Your task to perform on an android device: Do I have any events this weekend? Image 0: 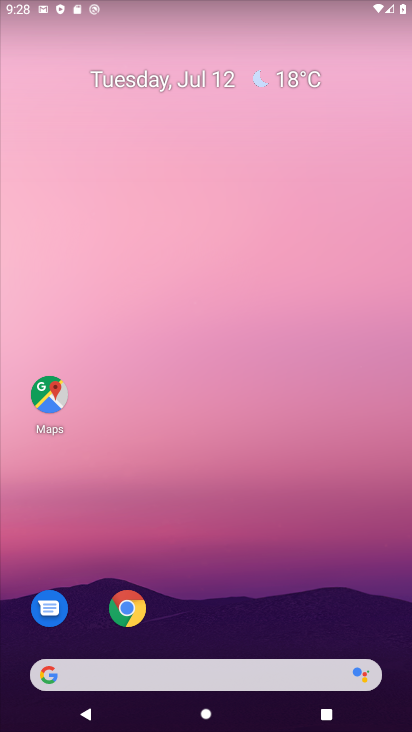
Step 0: drag from (240, 558) to (195, 155)
Your task to perform on an android device: Do I have any events this weekend? Image 1: 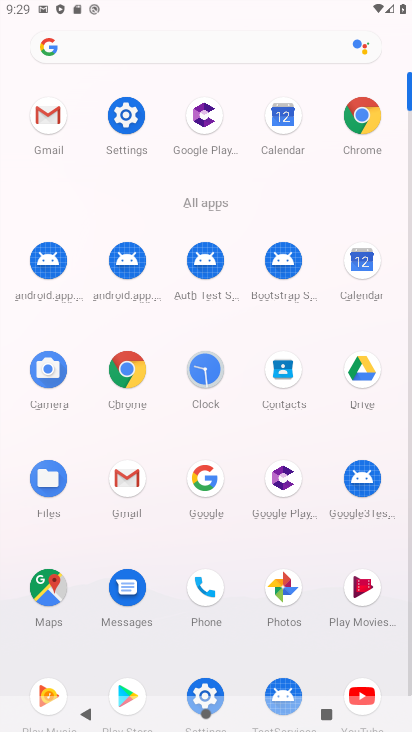
Step 1: click (355, 255)
Your task to perform on an android device: Do I have any events this weekend? Image 2: 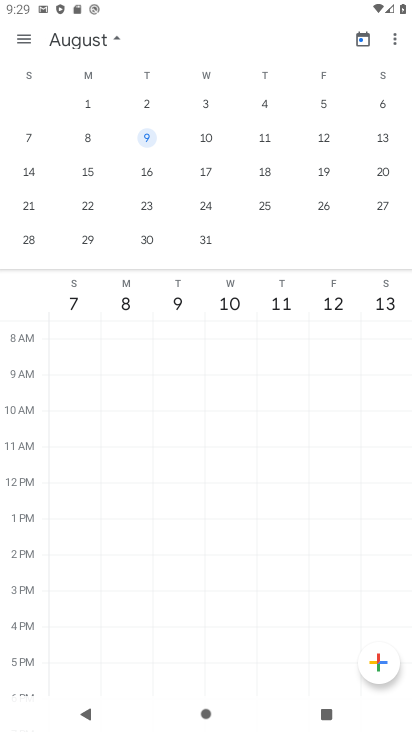
Step 2: click (20, 38)
Your task to perform on an android device: Do I have any events this weekend? Image 3: 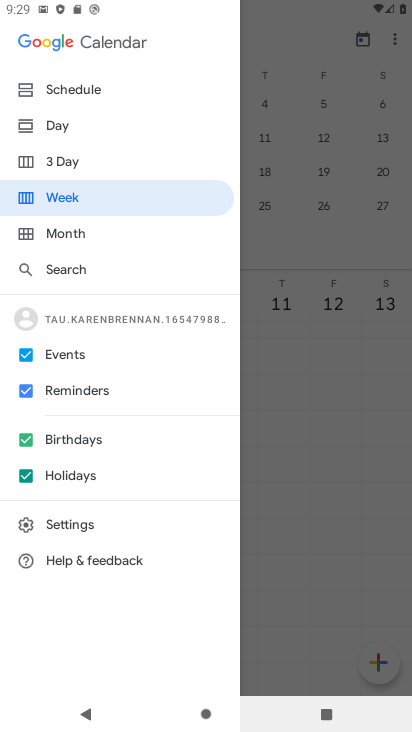
Step 3: click (62, 195)
Your task to perform on an android device: Do I have any events this weekend? Image 4: 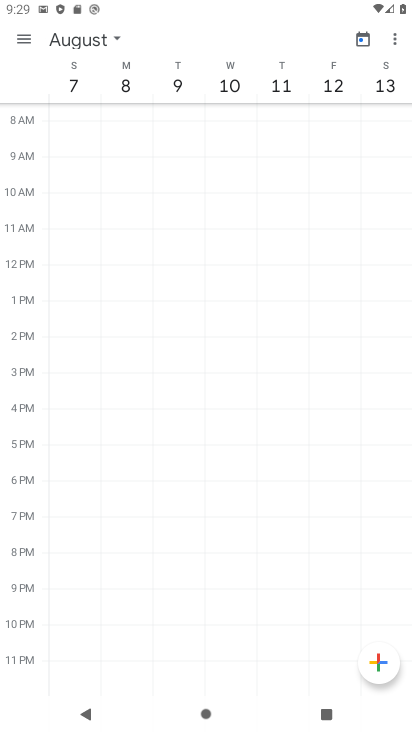
Step 4: click (109, 38)
Your task to perform on an android device: Do I have any events this weekend? Image 5: 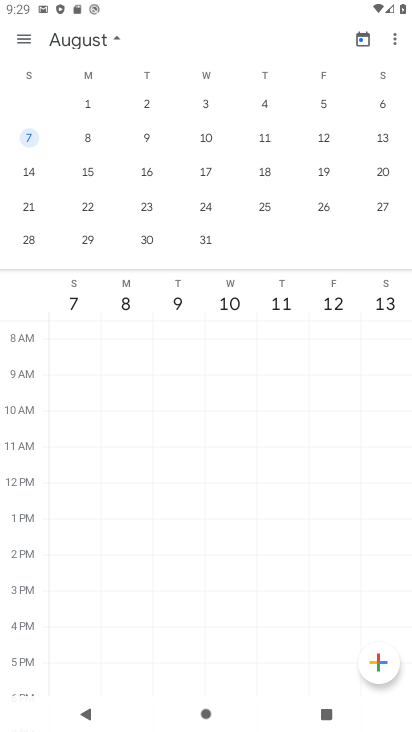
Step 5: drag from (23, 175) to (367, 225)
Your task to perform on an android device: Do I have any events this weekend? Image 6: 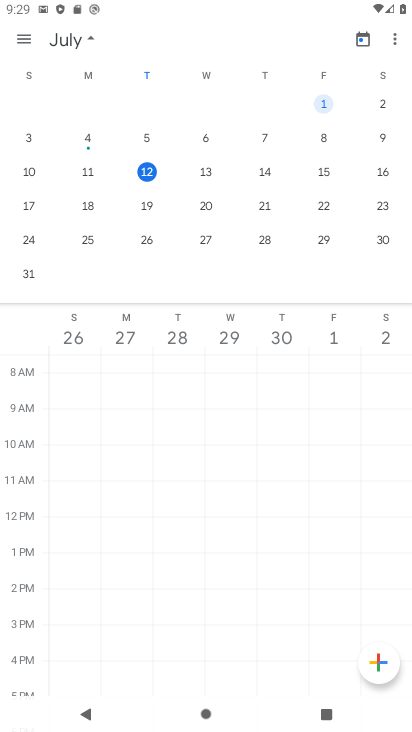
Step 6: click (146, 169)
Your task to perform on an android device: Do I have any events this weekend? Image 7: 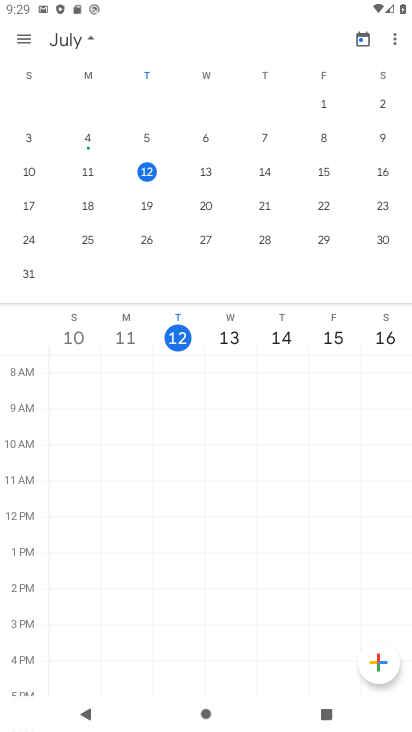
Step 7: task complete